Your task to perform on an android device: Open Wikipedia Image 0: 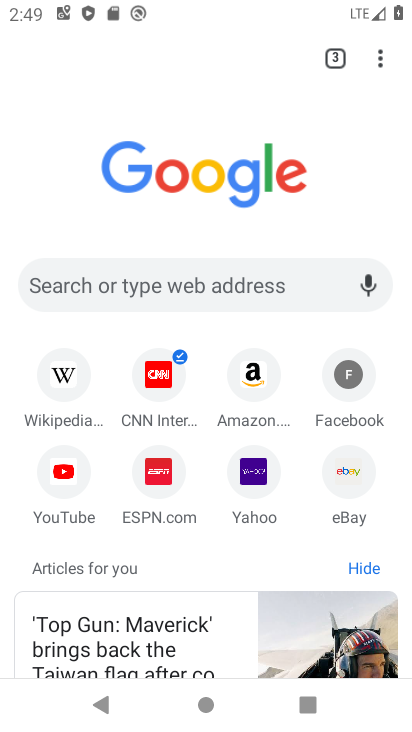
Step 0: click (61, 390)
Your task to perform on an android device: Open Wikipedia Image 1: 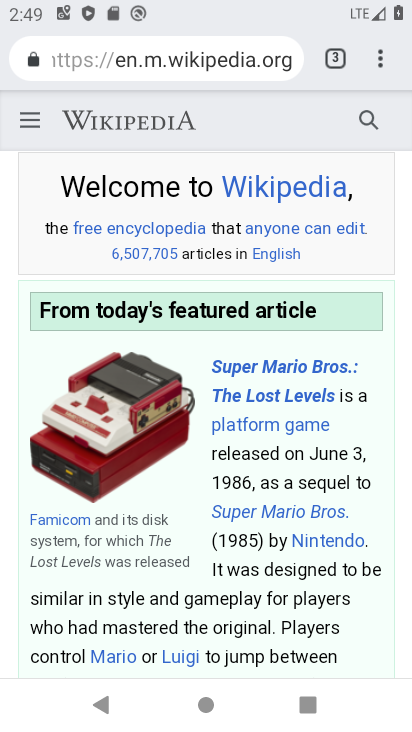
Step 1: task complete